Your task to perform on an android device: allow cookies in the chrome app Image 0: 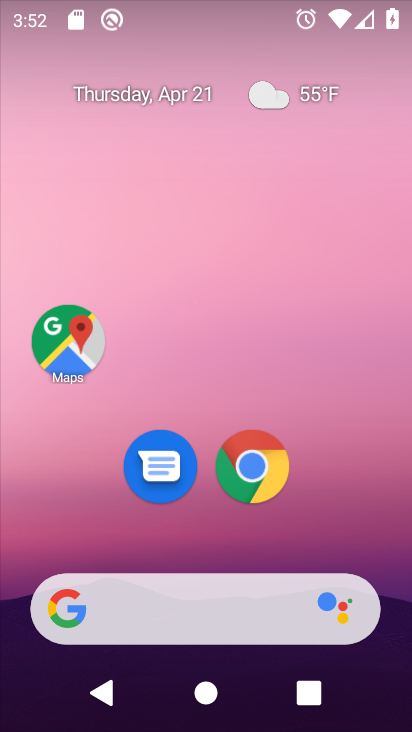
Step 0: click (261, 478)
Your task to perform on an android device: allow cookies in the chrome app Image 1: 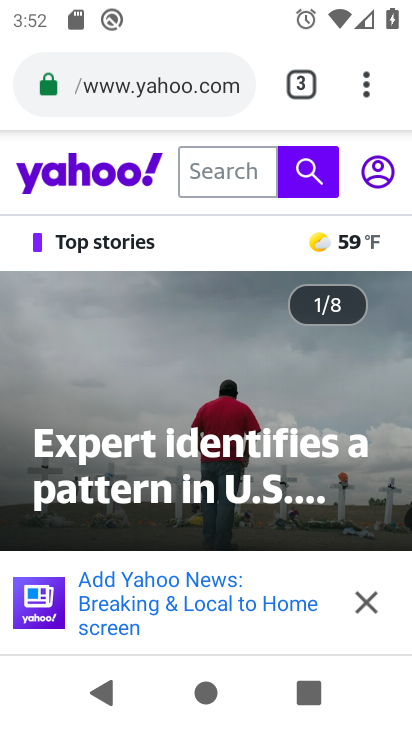
Step 1: click (371, 77)
Your task to perform on an android device: allow cookies in the chrome app Image 2: 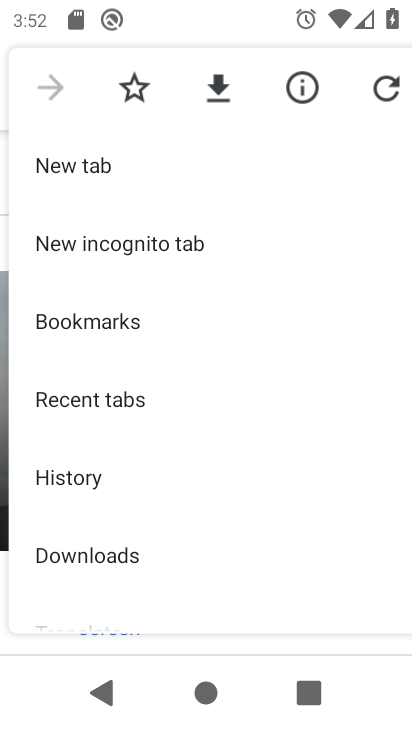
Step 2: drag from (188, 563) to (196, 15)
Your task to perform on an android device: allow cookies in the chrome app Image 3: 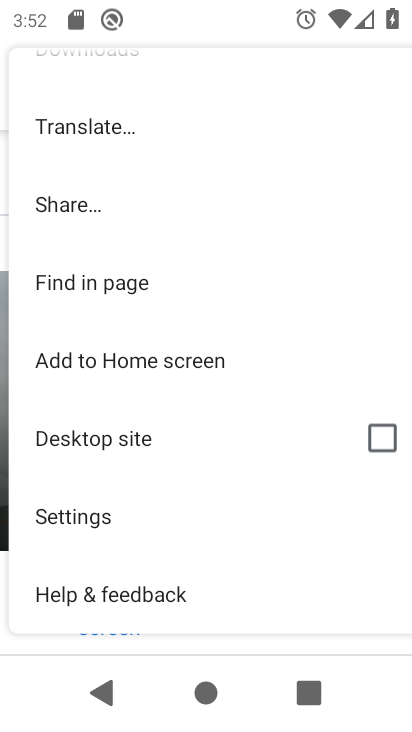
Step 3: click (125, 509)
Your task to perform on an android device: allow cookies in the chrome app Image 4: 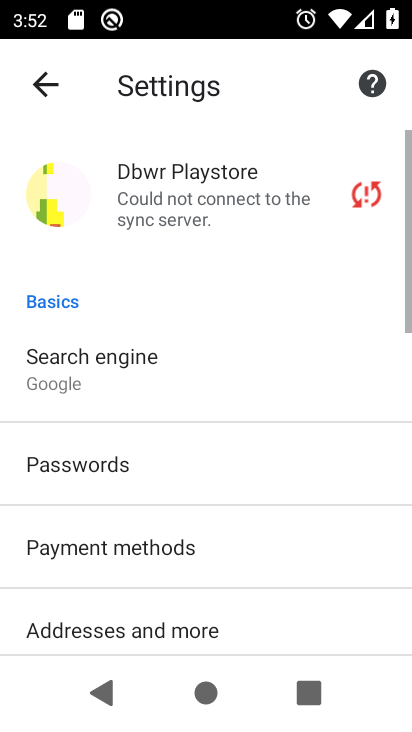
Step 4: drag from (208, 569) to (278, 29)
Your task to perform on an android device: allow cookies in the chrome app Image 5: 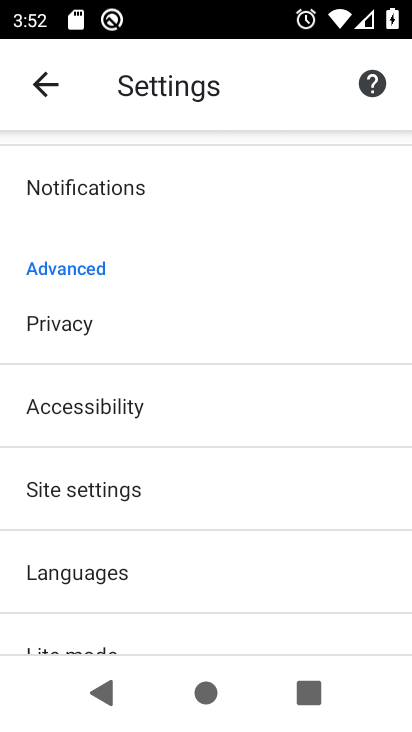
Step 5: click (178, 481)
Your task to perform on an android device: allow cookies in the chrome app Image 6: 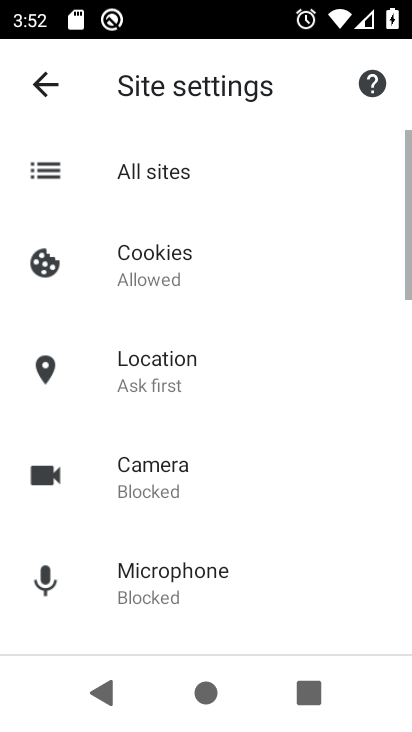
Step 6: click (255, 262)
Your task to perform on an android device: allow cookies in the chrome app Image 7: 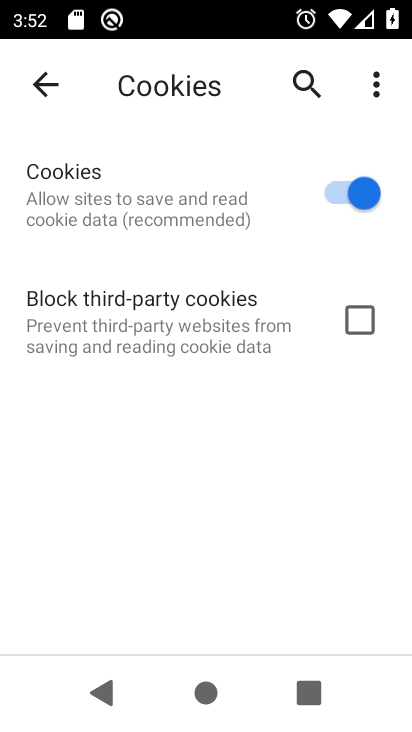
Step 7: task complete